Your task to perform on an android device: Go to notification settings Image 0: 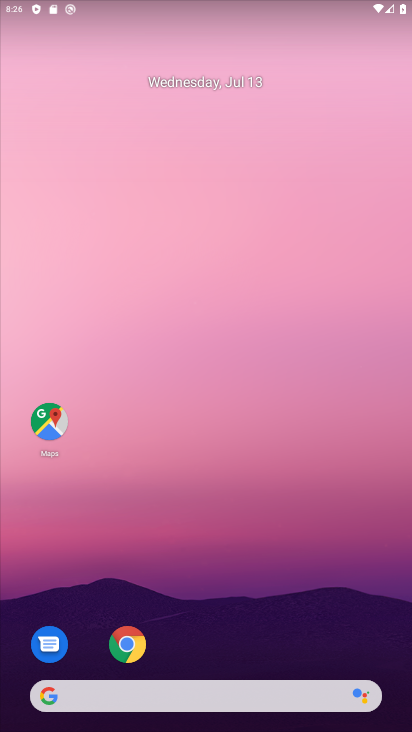
Step 0: drag from (212, 722) to (129, 0)
Your task to perform on an android device: Go to notification settings Image 1: 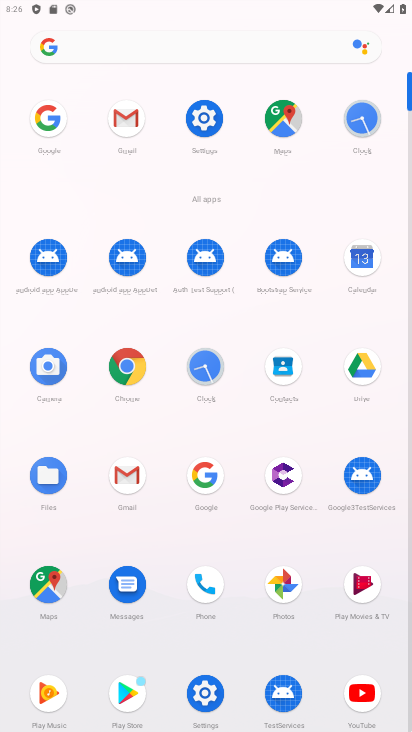
Step 1: click (211, 115)
Your task to perform on an android device: Go to notification settings Image 2: 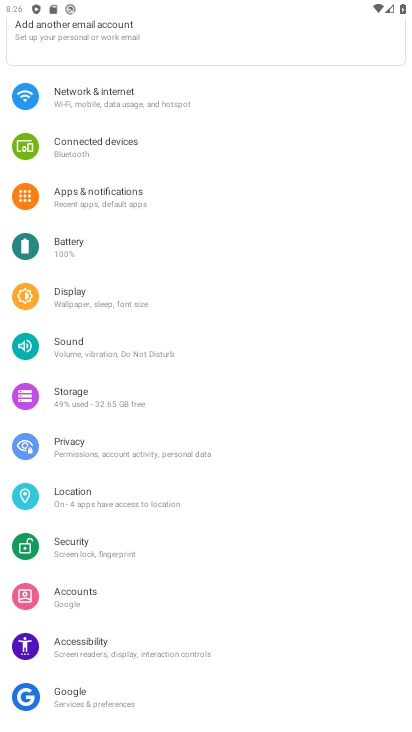
Step 2: click (100, 189)
Your task to perform on an android device: Go to notification settings Image 3: 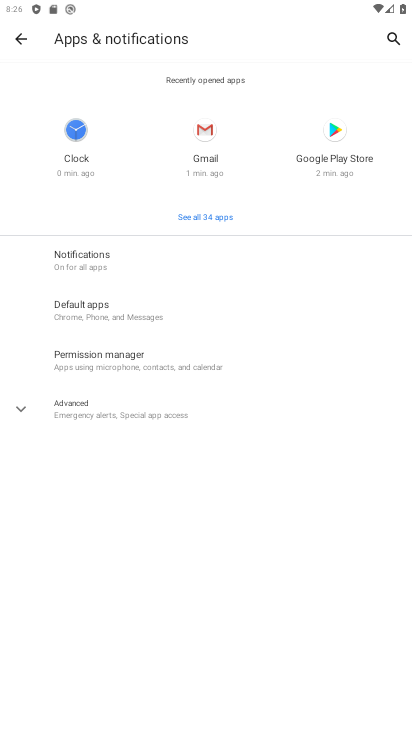
Step 3: click (79, 260)
Your task to perform on an android device: Go to notification settings Image 4: 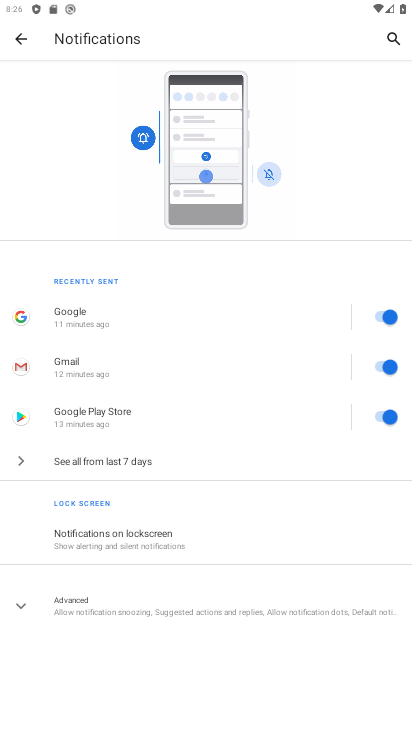
Step 4: task complete